Your task to perform on an android device: Turn off the flashlight Image 0: 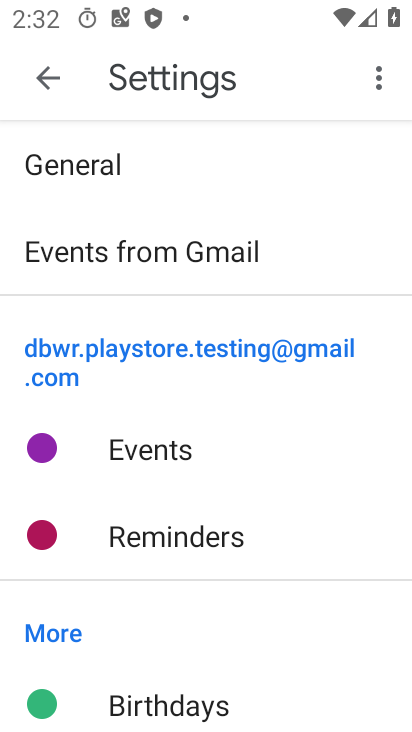
Step 0: press home button
Your task to perform on an android device: Turn off the flashlight Image 1: 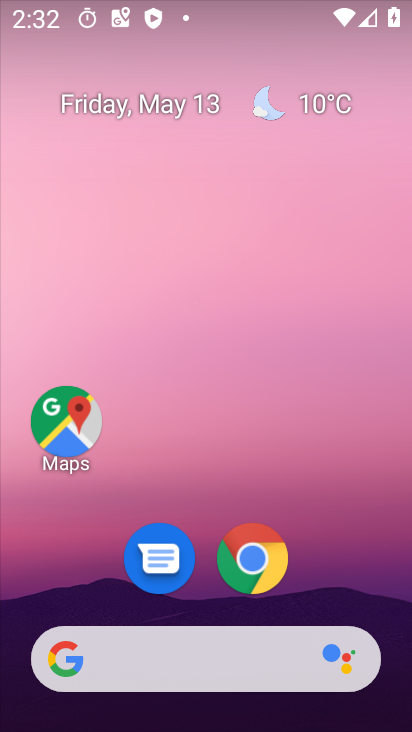
Step 1: drag from (207, 600) to (206, 186)
Your task to perform on an android device: Turn off the flashlight Image 2: 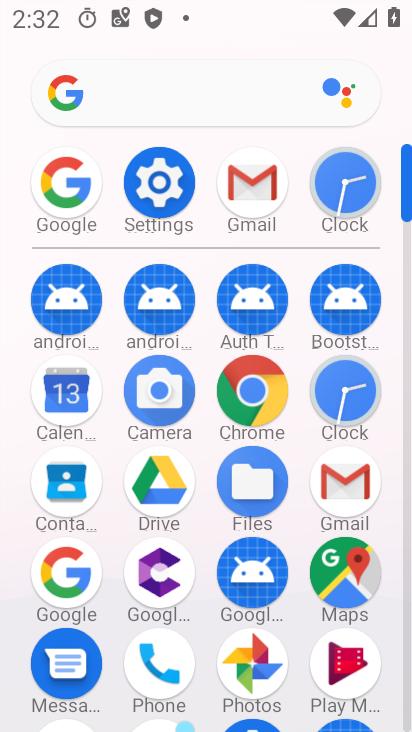
Step 2: click (147, 170)
Your task to perform on an android device: Turn off the flashlight Image 3: 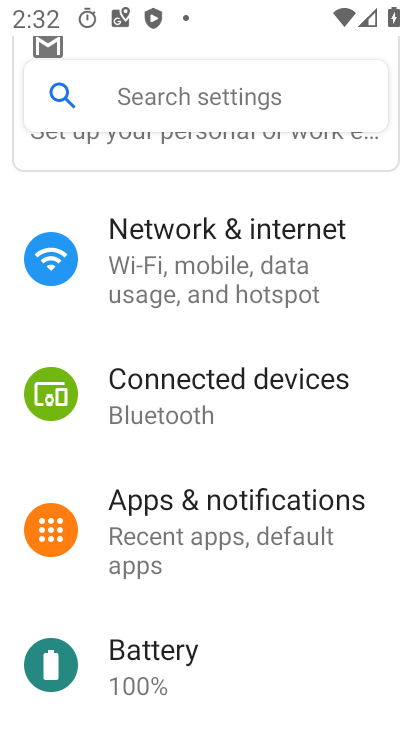
Step 3: task complete